Your task to perform on an android device: open chrome privacy settings Image 0: 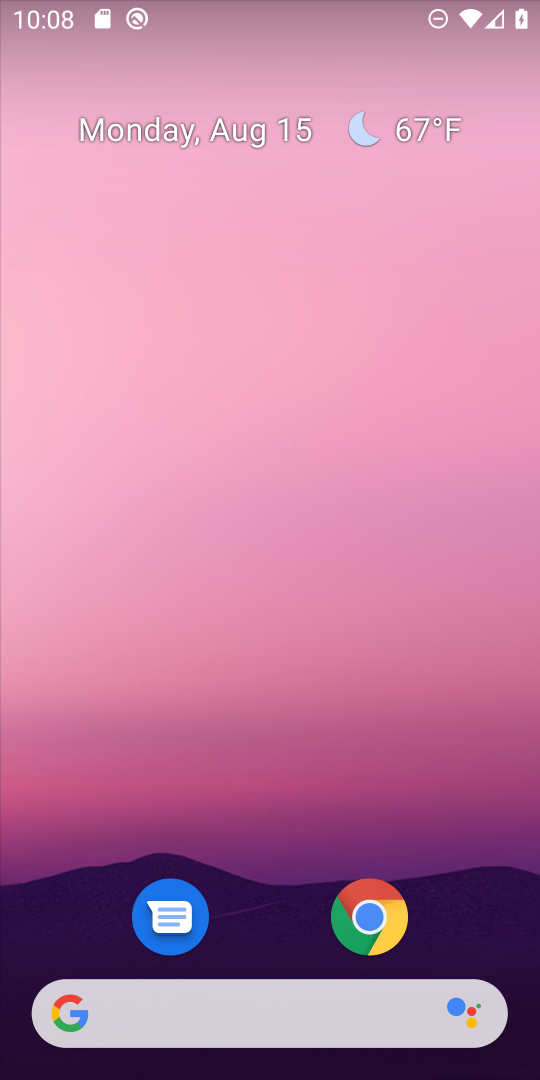
Step 0: click (376, 913)
Your task to perform on an android device: open chrome privacy settings Image 1: 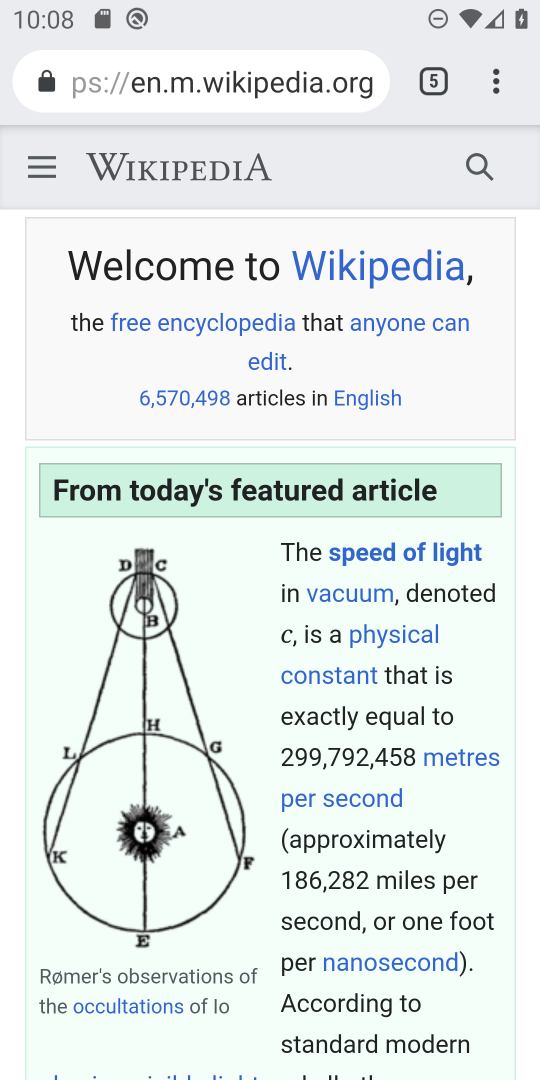
Step 1: click (490, 69)
Your task to perform on an android device: open chrome privacy settings Image 2: 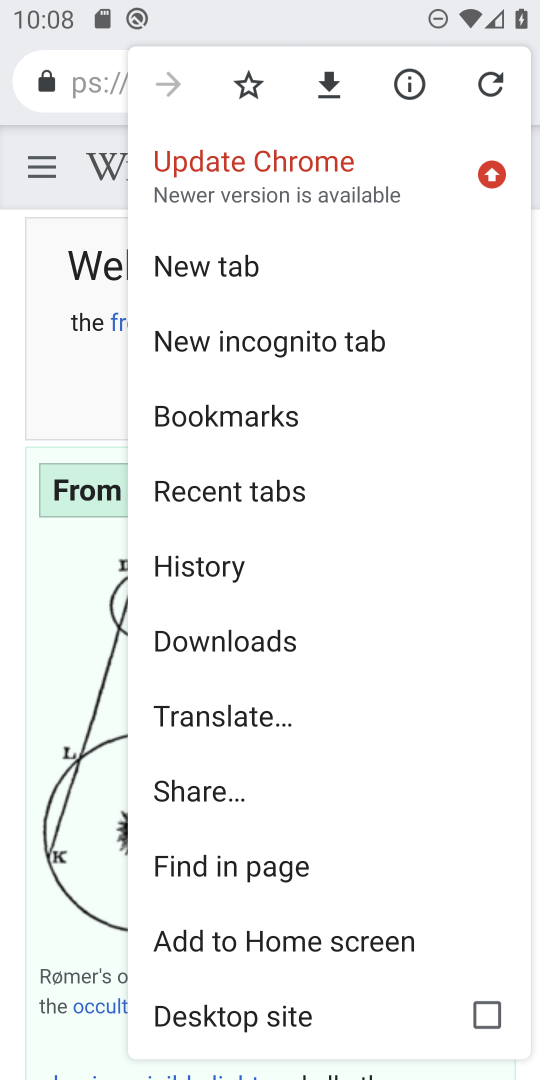
Step 2: drag from (334, 768) to (376, 293)
Your task to perform on an android device: open chrome privacy settings Image 3: 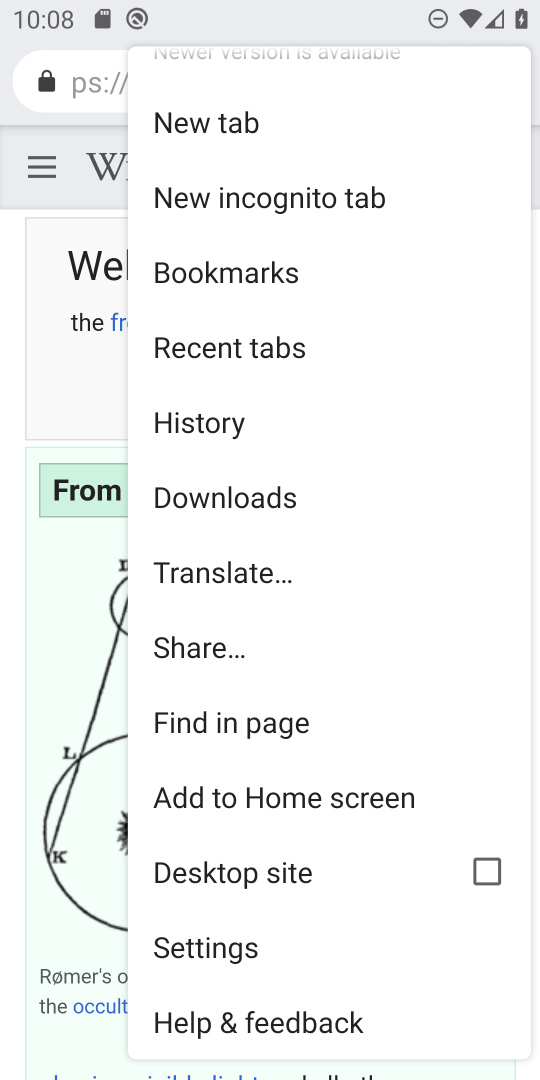
Step 3: click (234, 942)
Your task to perform on an android device: open chrome privacy settings Image 4: 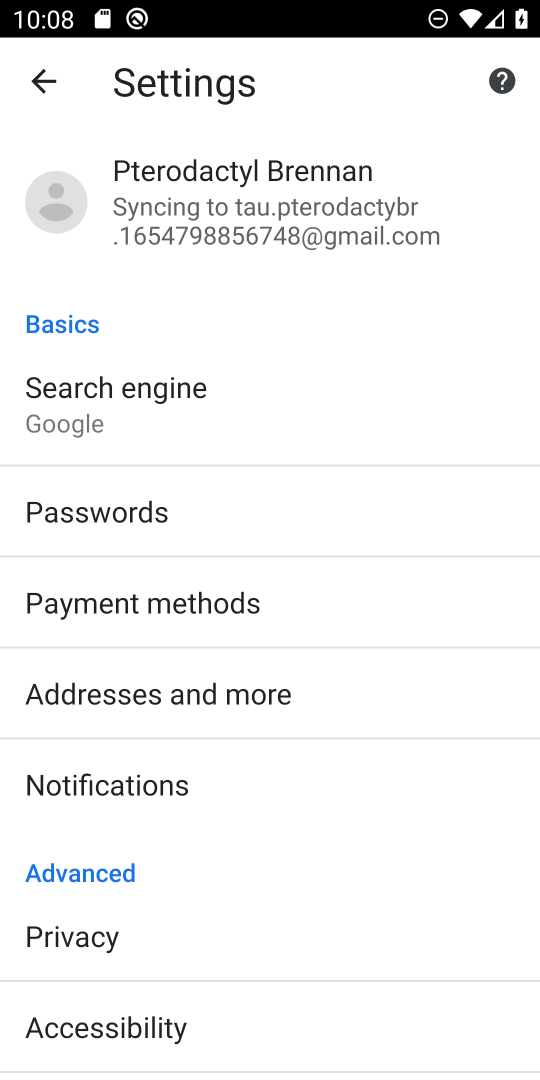
Step 4: click (119, 929)
Your task to perform on an android device: open chrome privacy settings Image 5: 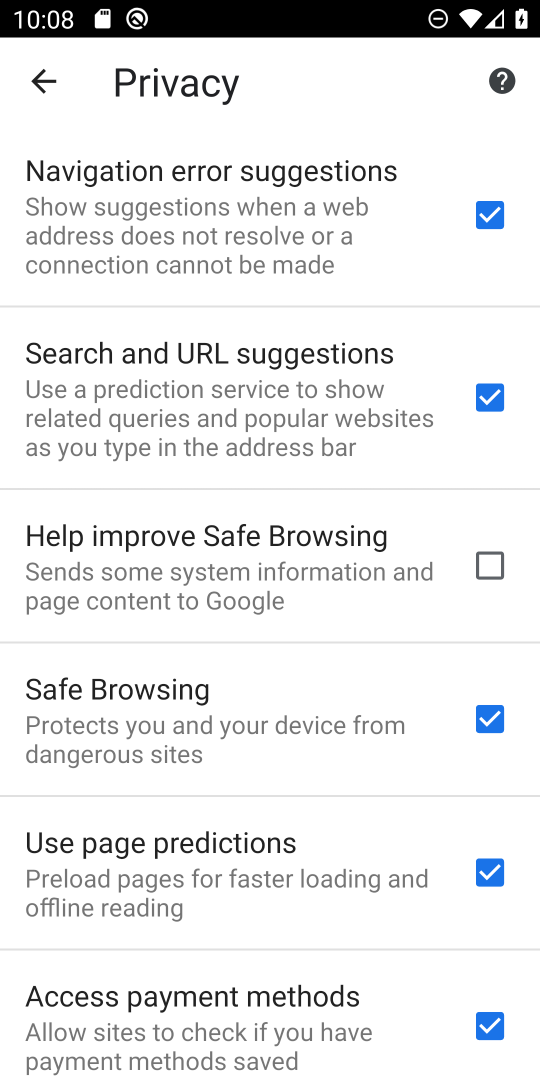
Step 5: task complete